Your task to perform on an android device: turn off translation in the chrome app Image 0: 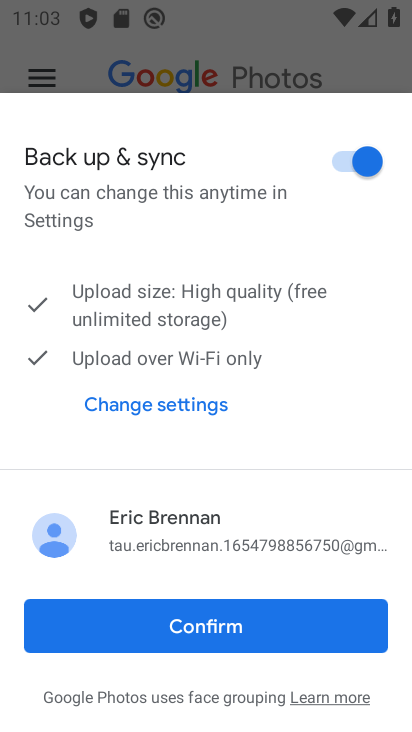
Step 0: press home button
Your task to perform on an android device: turn off translation in the chrome app Image 1: 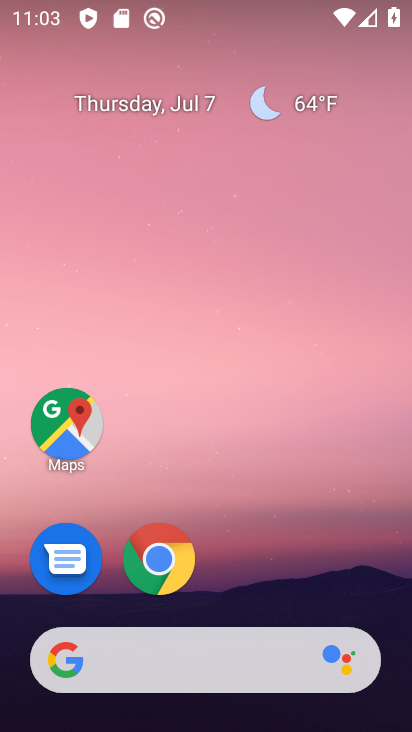
Step 1: click (147, 572)
Your task to perform on an android device: turn off translation in the chrome app Image 2: 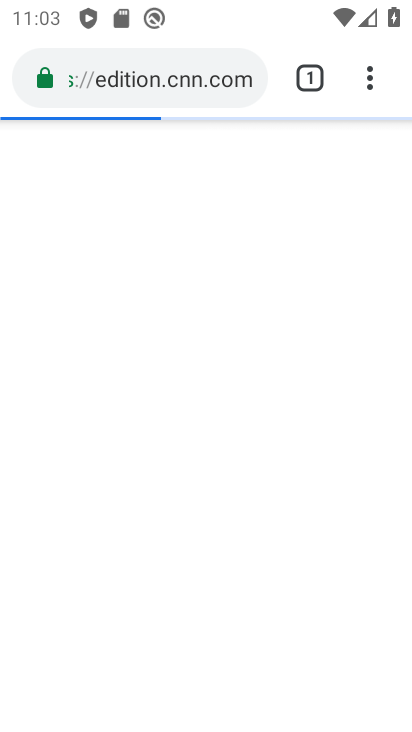
Step 2: click (368, 71)
Your task to perform on an android device: turn off translation in the chrome app Image 3: 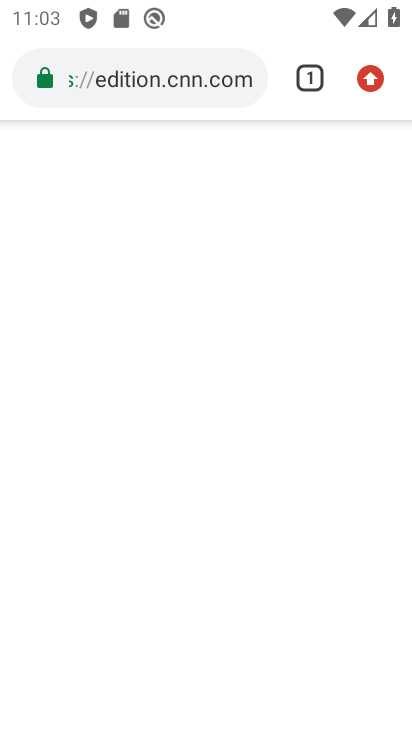
Step 3: click (366, 81)
Your task to perform on an android device: turn off translation in the chrome app Image 4: 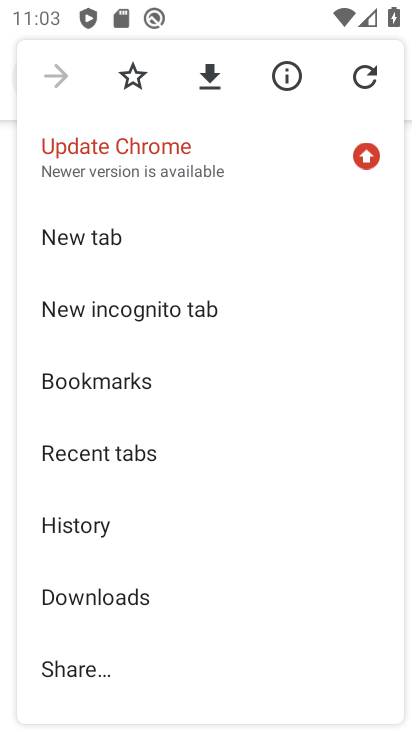
Step 4: drag from (84, 681) to (169, 248)
Your task to perform on an android device: turn off translation in the chrome app Image 5: 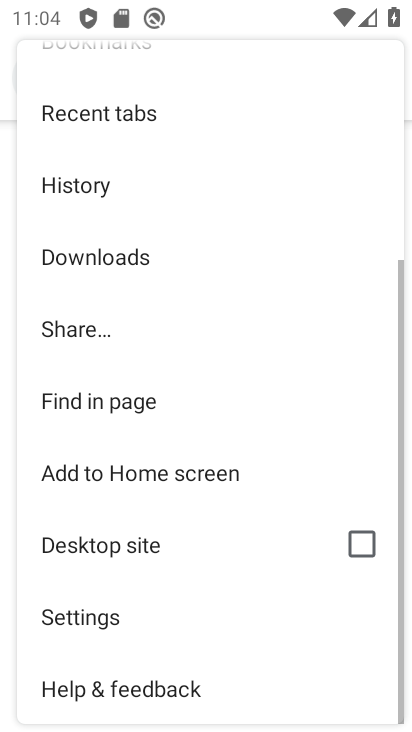
Step 5: click (92, 617)
Your task to perform on an android device: turn off translation in the chrome app Image 6: 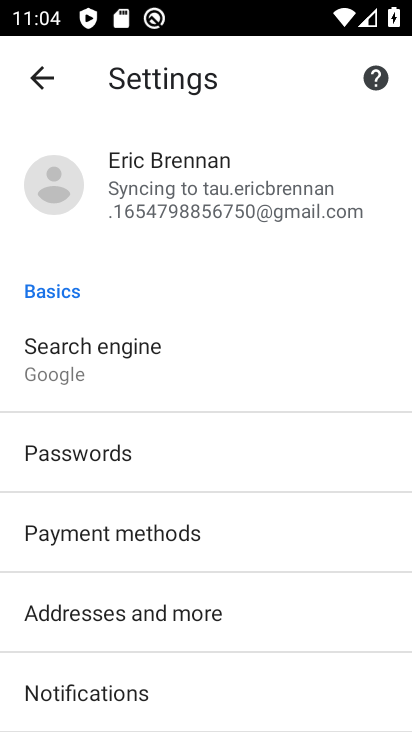
Step 6: drag from (77, 695) to (113, 427)
Your task to perform on an android device: turn off translation in the chrome app Image 7: 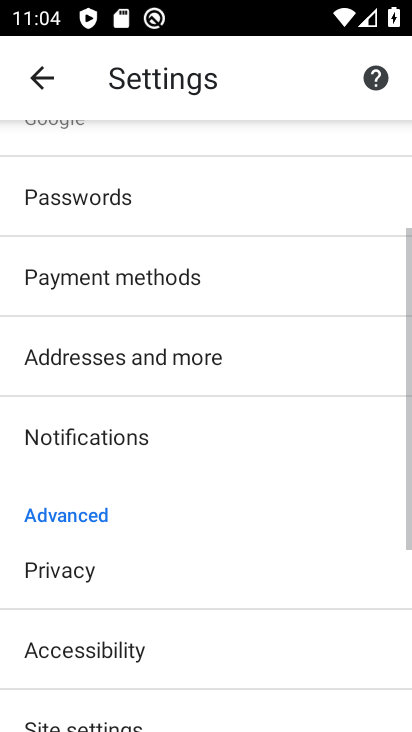
Step 7: drag from (51, 715) to (131, 406)
Your task to perform on an android device: turn off translation in the chrome app Image 8: 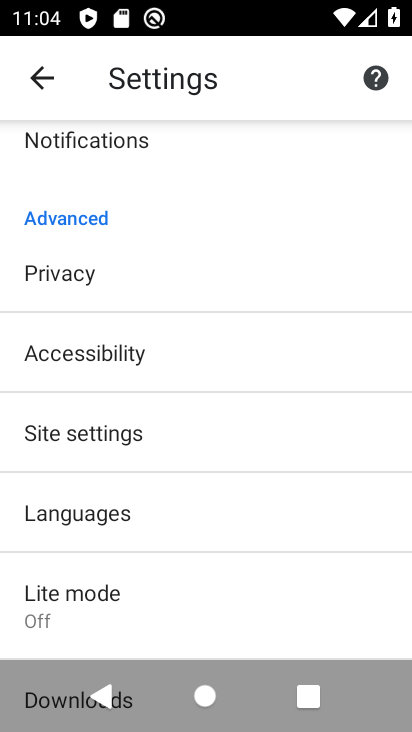
Step 8: click (52, 426)
Your task to perform on an android device: turn off translation in the chrome app Image 9: 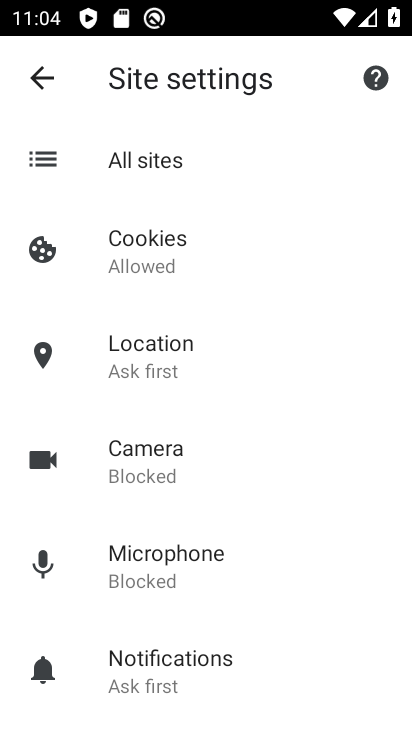
Step 9: drag from (103, 692) to (161, 334)
Your task to perform on an android device: turn off translation in the chrome app Image 10: 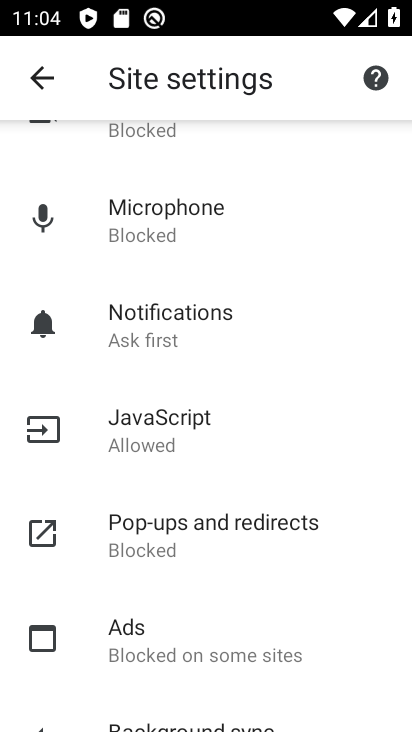
Step 10: click (42, 86)
Your task to perform on an android device: turn off translation in the chrome app Image 11: 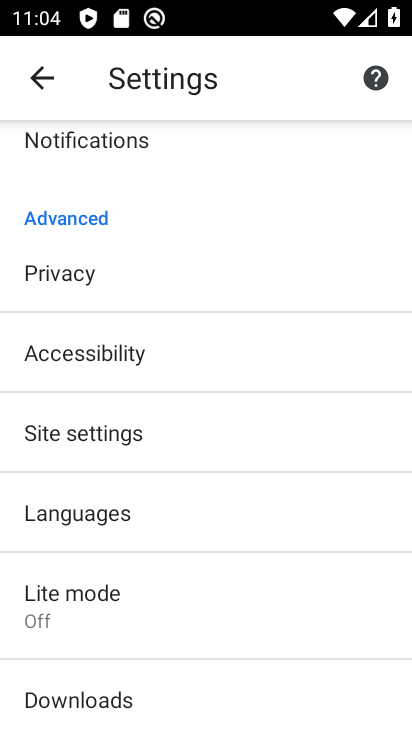
Step 11: click (94, 509)
Your task to perform on an android device: turn off translation in the chrome app Image 12: 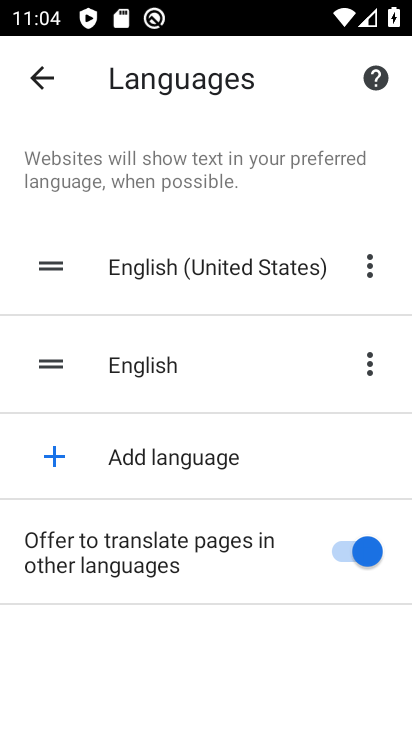
Step 12: click (347, 549)
Your task to perform on an android device: turn off translation in the chrome app Image 13: 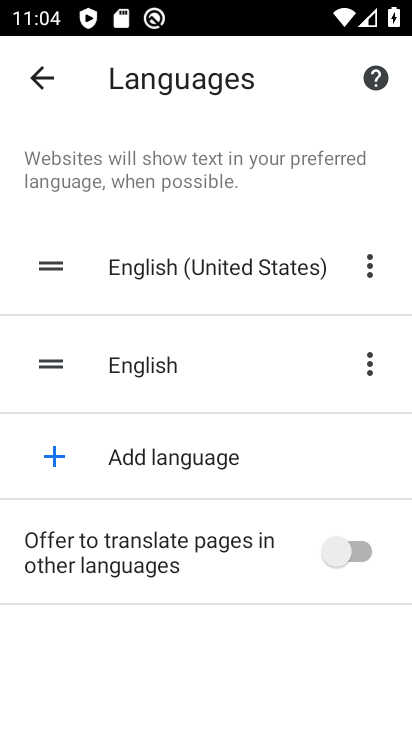
Step 13: task complete